Your task to perform on an android device: all mails in gmail Image 0: 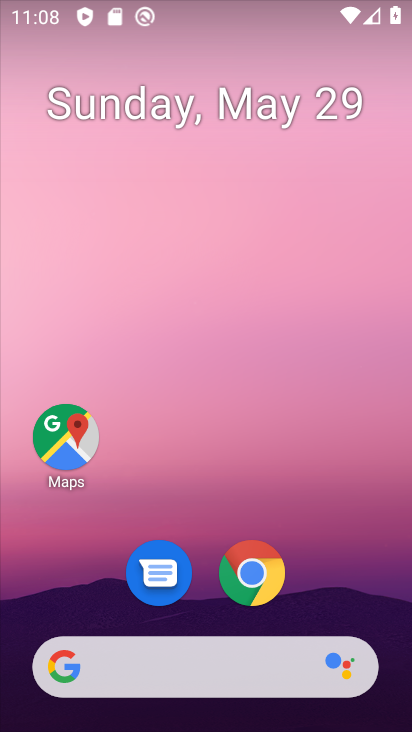
Step 0: drag from (135, 567) to (118, 43)
Your task to perform on an android device: all mails in gmail Image 1: 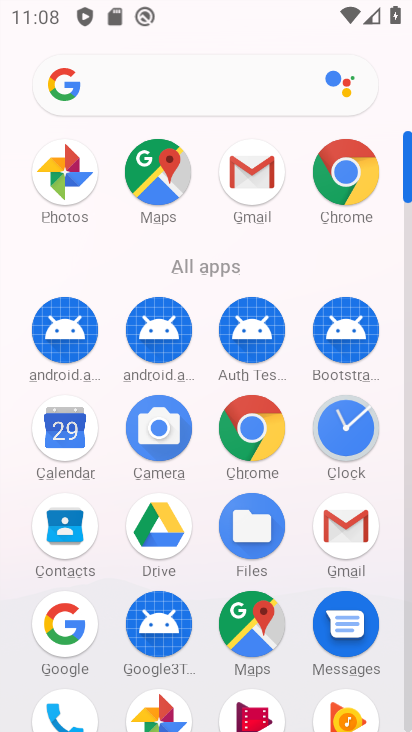
Step 1: click (347, 549)
Your task to perform on an android device: all mails in gmail Image 2: 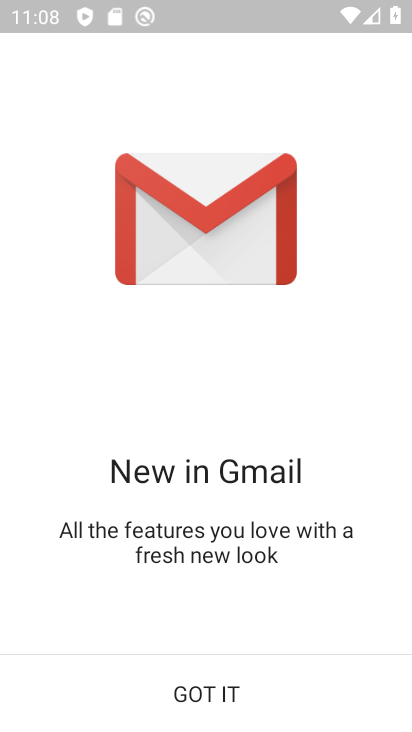
Step 2: click (226, 700)
Your task to perform on an android device: all mails in gmail Image 3: 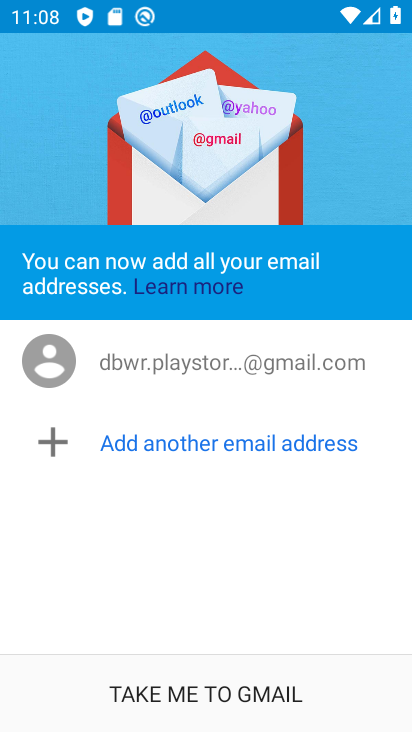
Step 3: click (229, 689)
Your task to perform on an android device: all mails in gmail Image 4: 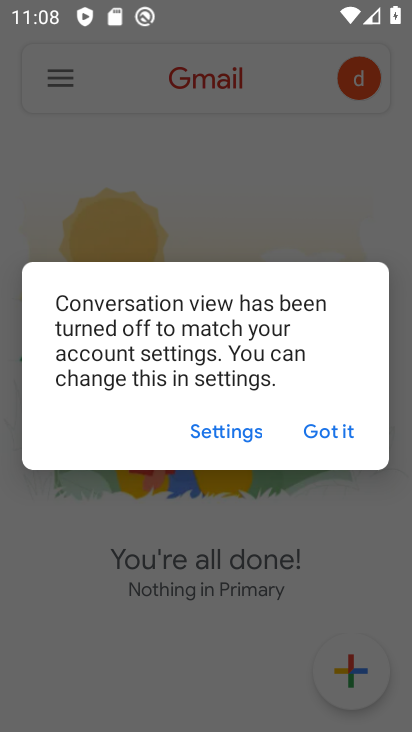
Step 4: click (354, 431)
Your task to perform on an android device: all mails in gmail Image 5: 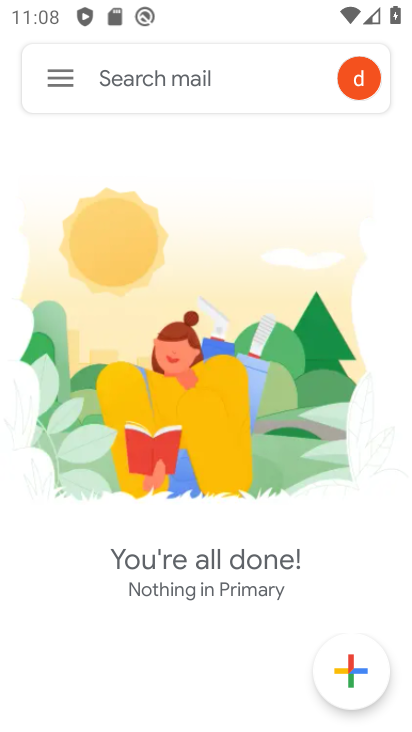
Step 5: click (52, 76)
Your task to perform on an android device: all mails in gmail Image 6: 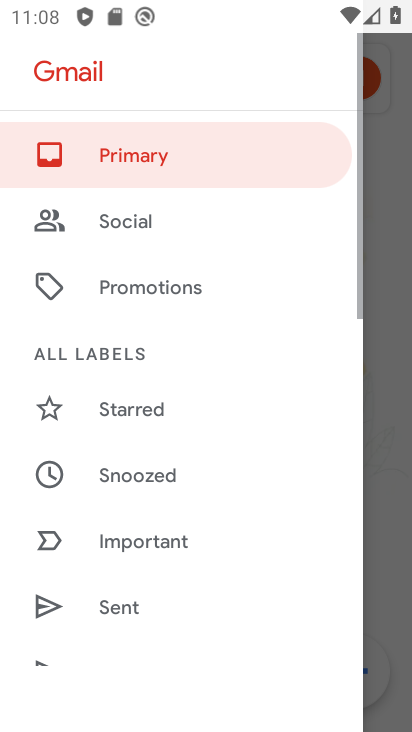
Step 6: drag from (170, 623) to (251, 87)
Your task to perform on an android device: all mails in gmail Image 7: 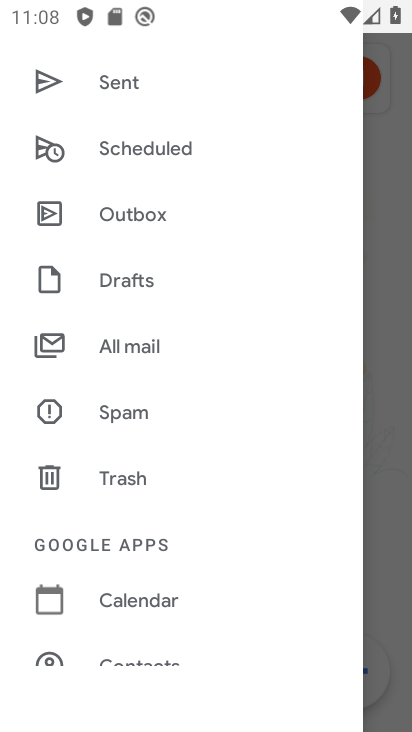
Step 7: drag from (127, 608) to (155, 433)
Your task to perform on an android device: all mails in gmail Image 8: 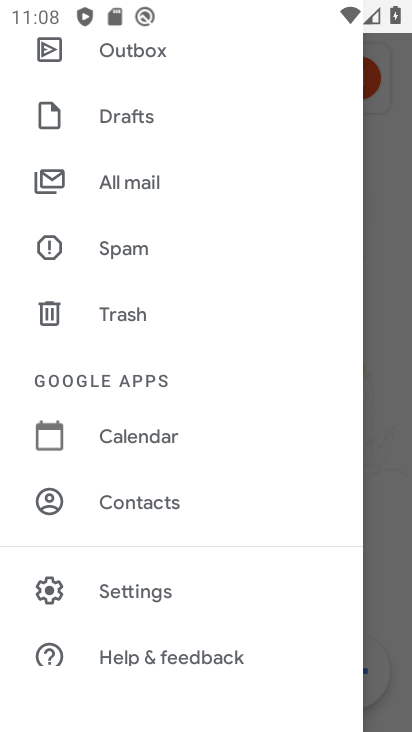
Step 8: click (146, 194)
Your task to perform on an android device: all mails in gmail Image 9: 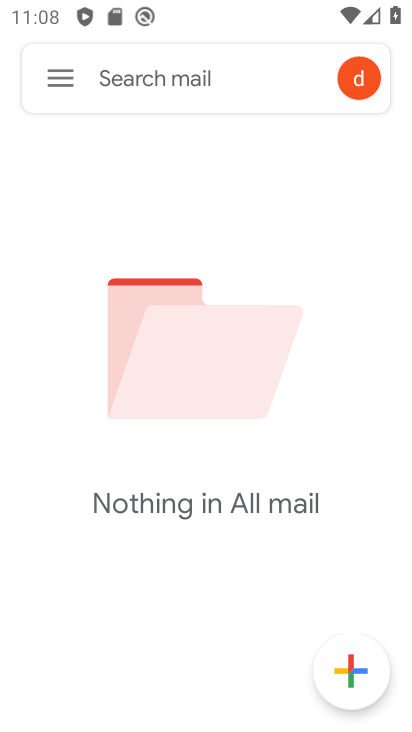
Step 9: task complete